Your task to perform on an android device: Show me popular videos on Youtube Image 0: 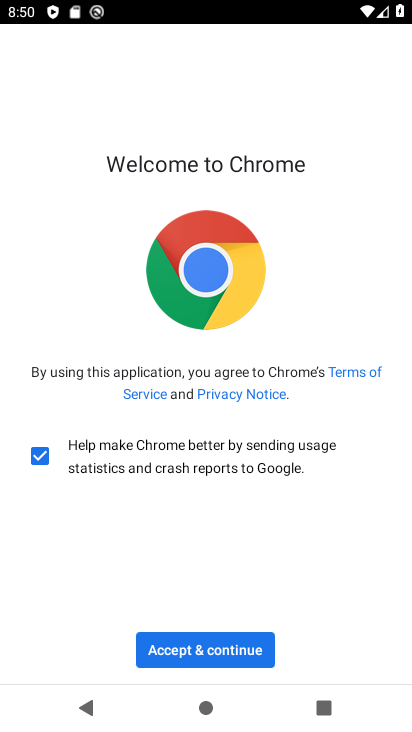
Step 0: press home button
Your task to perform on an android device: Show me popular videos on Youtube Image 1: 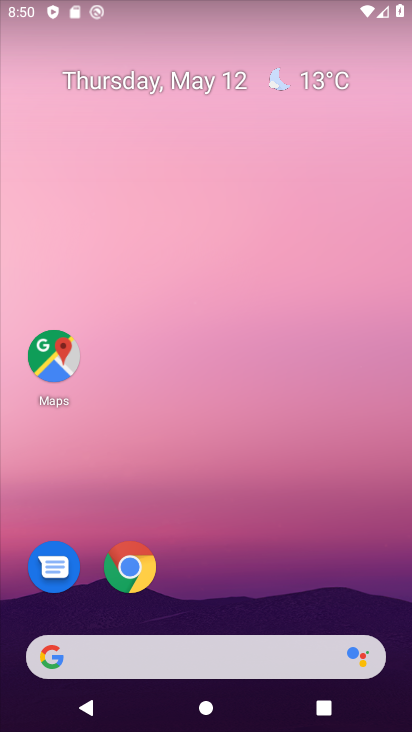
Step 1: drag from (221, 586) to (275, 8)
Your task to perform on an android device: Show me popular videos on Youtube Image 2: 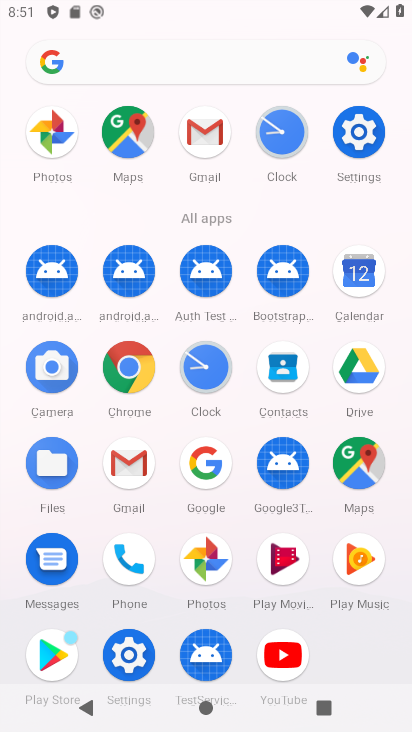
Step 2: click (292, 652)
Your task to perform on an android device: Show me popular videos on Youtube Image 3: 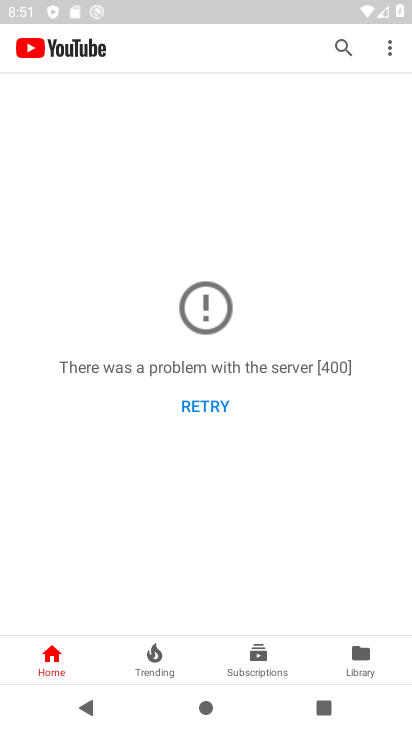
Step 3: click (217, 391)
Your task to perform on an android device: Show me popular videos on Youtube Image 4: 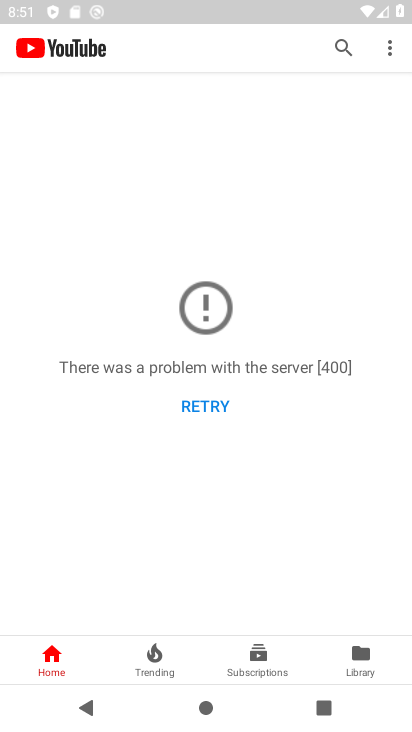
Step 4: task complete